Your task to perform on an android device: delete location history Image 0: 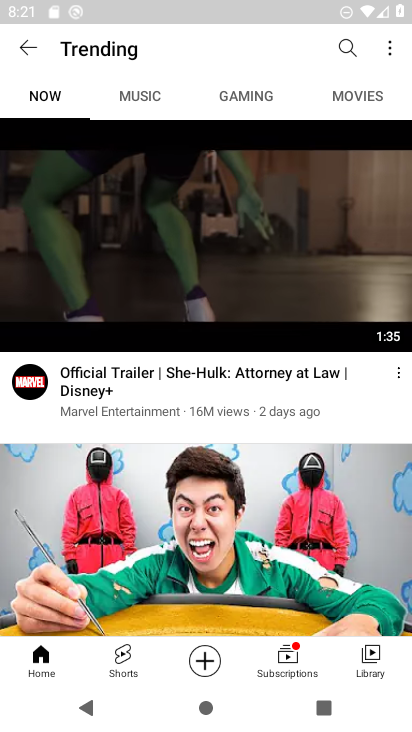
Step 0: press home button
Your task to perform on an android device: delete location history Image 1: 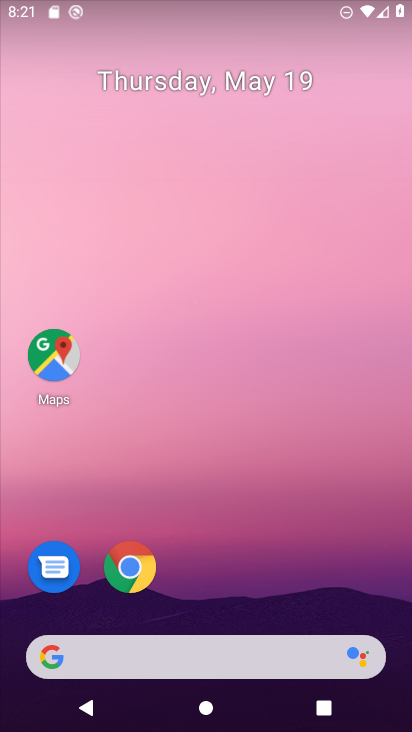
Step 1: click (61, 359)
Your task to perform on an android device: delete location history Image 2: 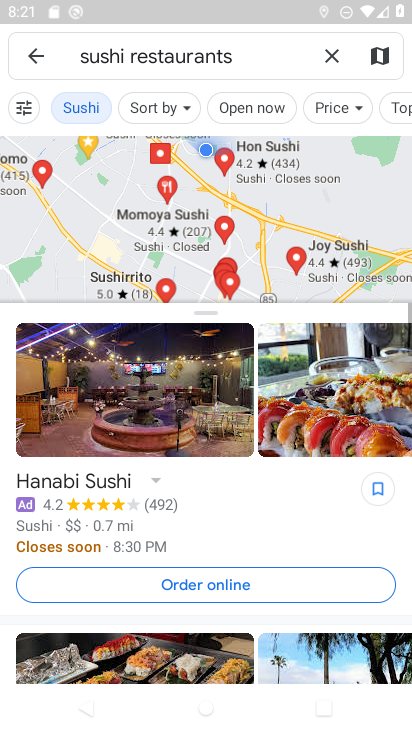
Step 2: click (43, 62)
Your task to perform on an android device: delete location history Image 3: 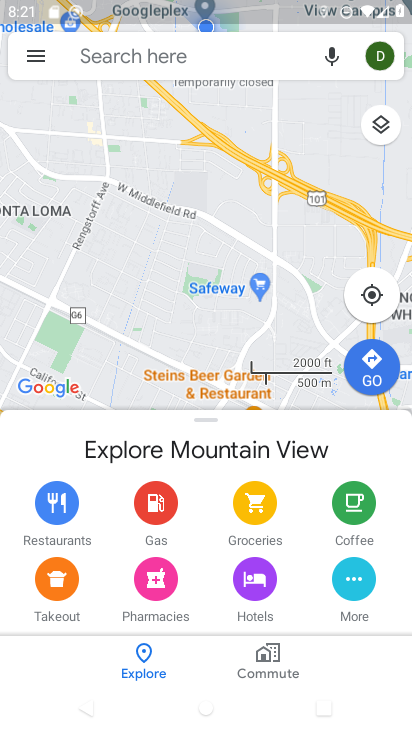
Step 3: click (43, 62)
Your task to perform on an android device: delete location history Image 4: 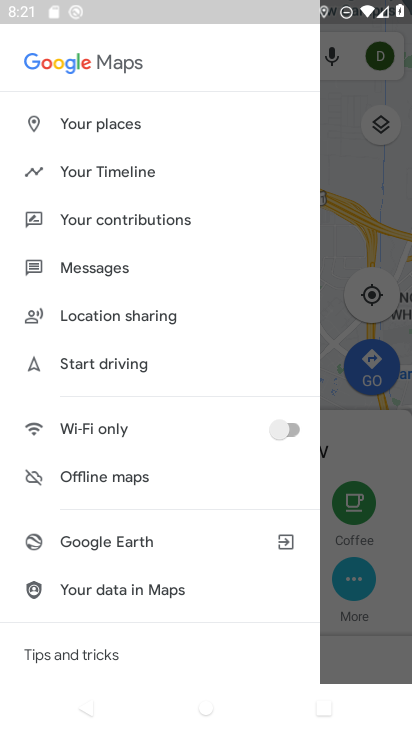
Step 4: drag from (125, 635) to (202, 179)
Your task to perform on an android device: delete location history Image 5: 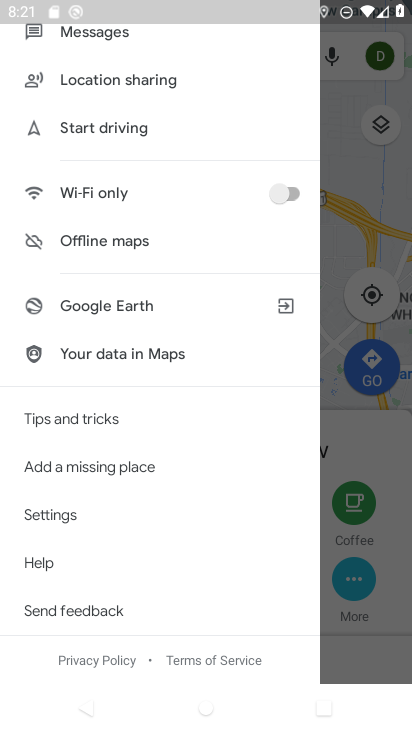
Step 5: click (97, 506)
Your task to perform on an android device: delete location history Image 6: 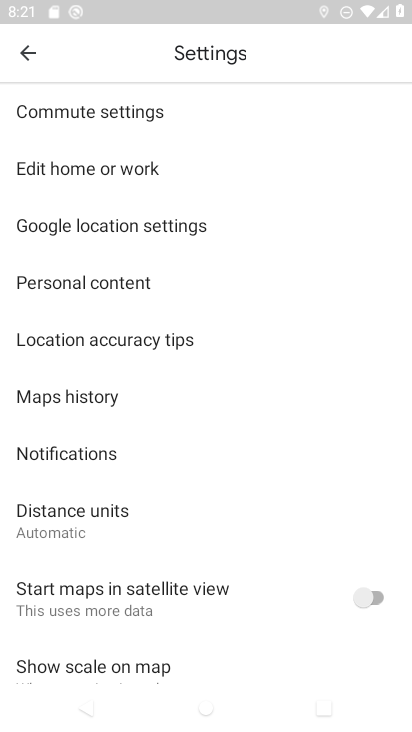
Step 6: drag from (157, 598) to (192, 186)
Your task to perform on an android device: delete location history Image 7: 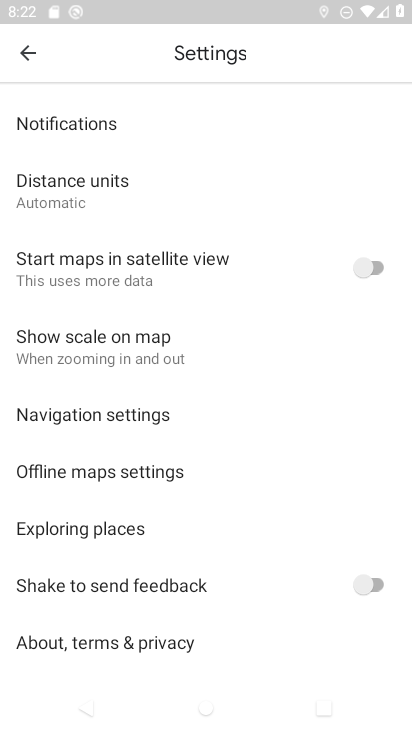
Step 7: drag from (109, 573) to (123, 107)
Your task to perform on an android device: delete location history Image 8: 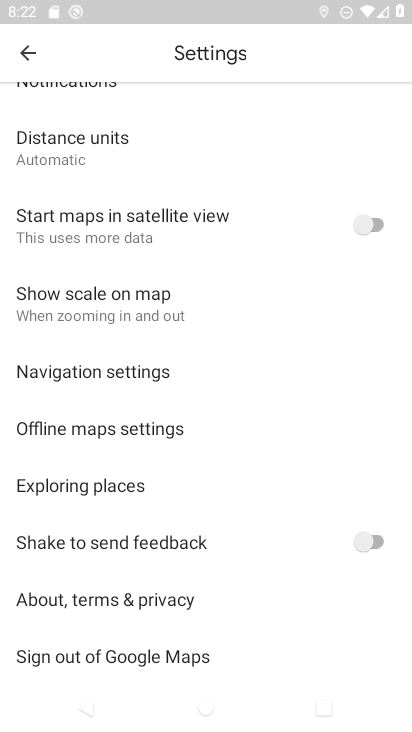
Step 8: drag from (123, 107) to (145, 550)
Your task to perform on an android device: delete location history Image 9: 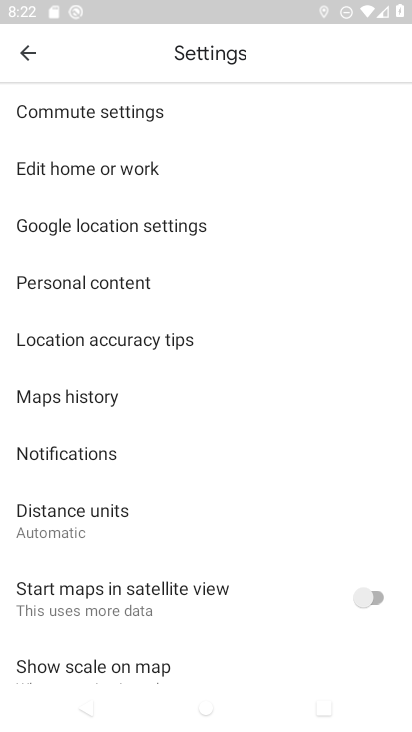
Step 9: click (22, 43)
Your task to perform on an android device: delete location history Image 10: 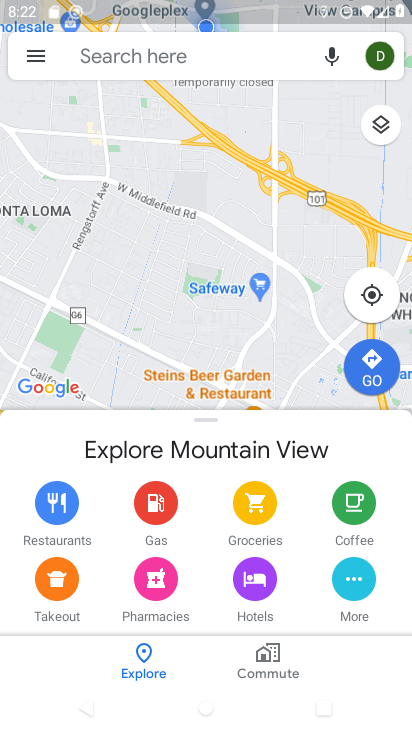
Step 10: click (22, 43)
Your task to perform on an android device: delete location history Image 11: 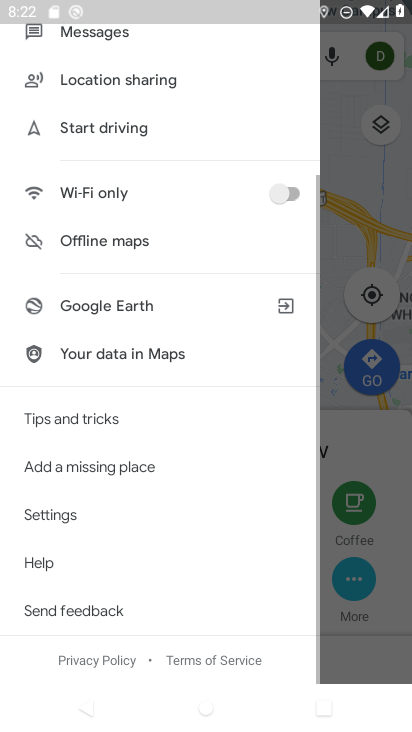
Step 11: click (33, 52)
Your task to perform on an android device: delete location history Image 12: 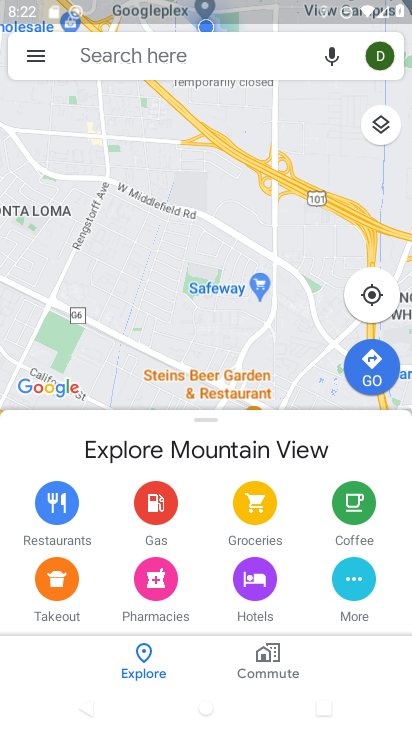
Step 12: click (38, 62)
Your task to perform on an android device: delete location history Image 13: 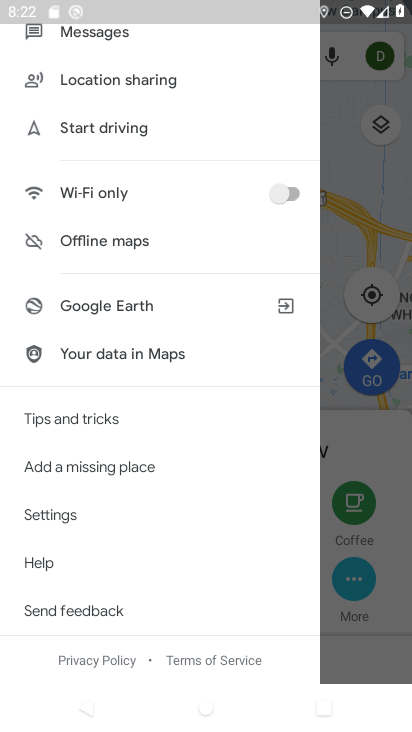
Step 13: drag from (136, 63) to (128, 621)
Your task to perform on an android device: delete location history Image 14: 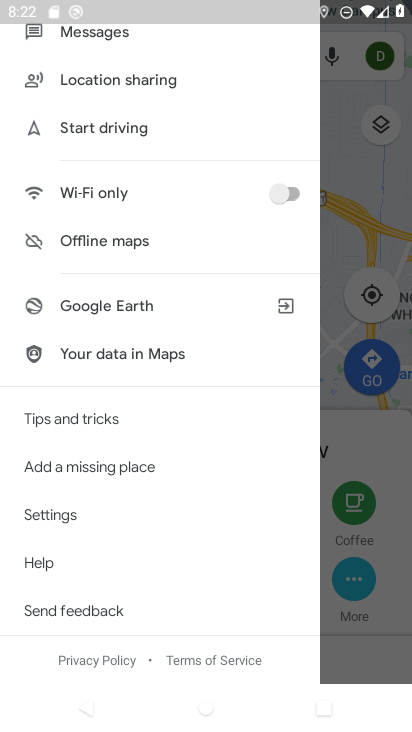
Step 14: drag from (211, 67) to (254, 565)
Your task to perform on an android device: delete location history Image 15: 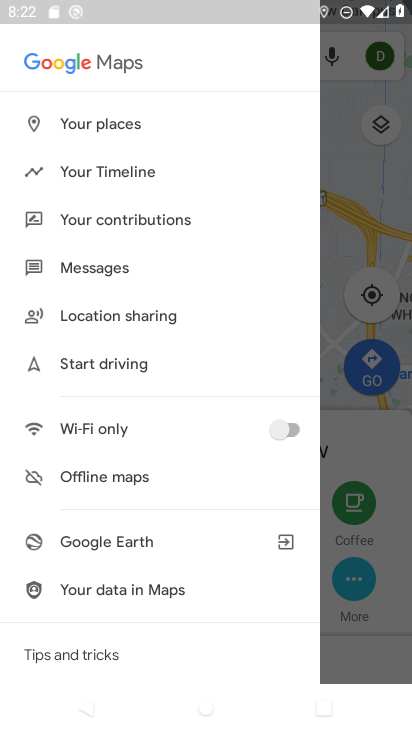
Step 15: click (143, 177)
Your task to perform on an android device: delete location history Image 16: 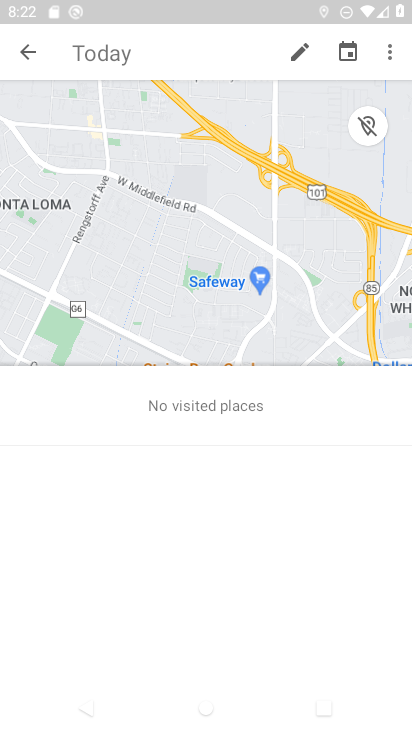
Step 16: click (397, 48)
Your task to perform on an android device: delete location history Image 17: 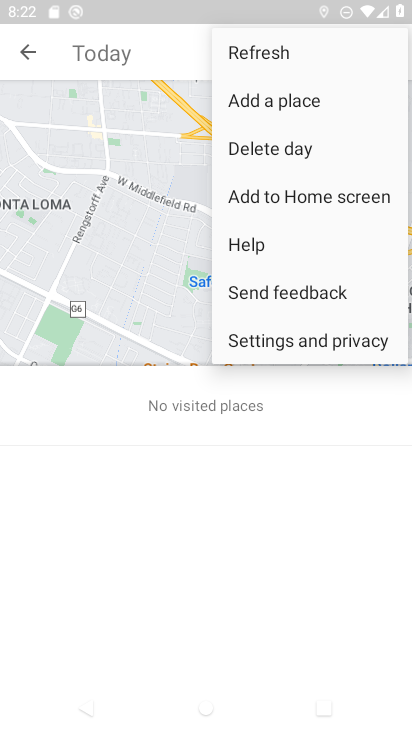
Step 17: click (250, 348)
Your task to perform on an android device: delete location history Image 18: 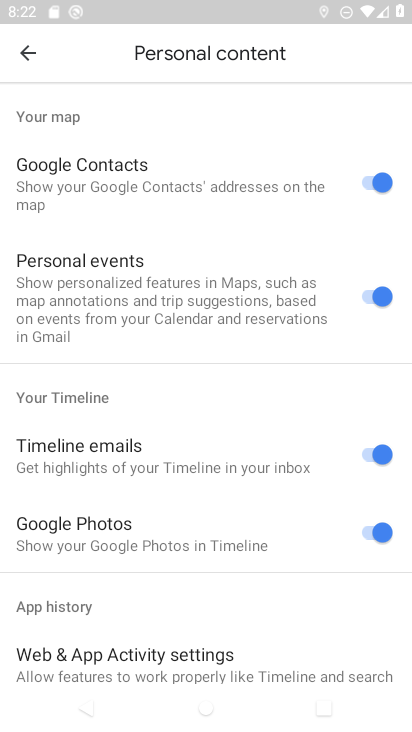
Step 18: drag from (147, 622) to (135, 188)
Your task to perform on an android device: delete location history Image 19: 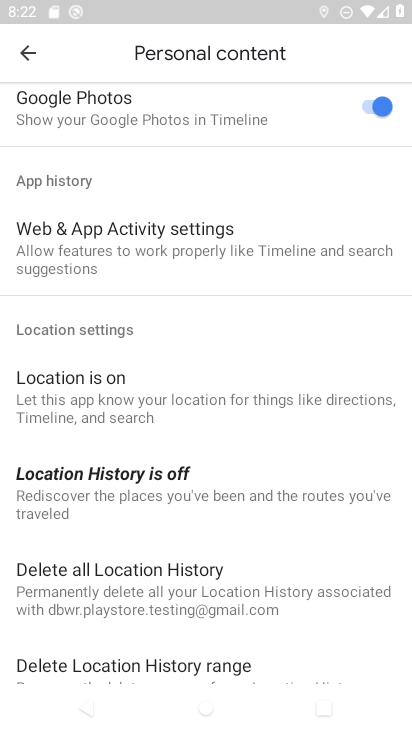
Step 19: click (88, 614)
Your task to perform on an android device: delete location history Image 20: 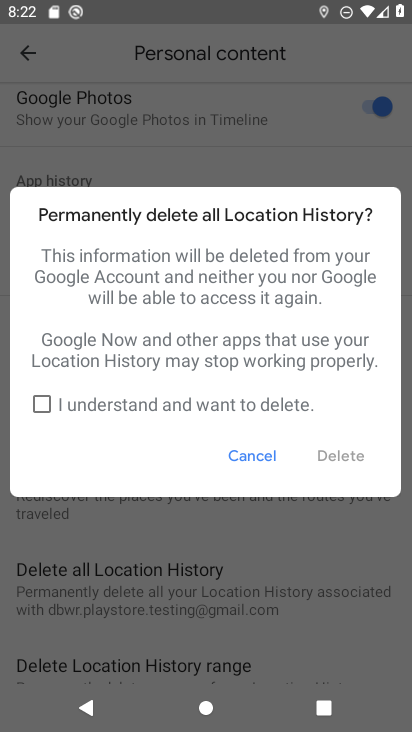
Step 20: click (46, 404)
Your task to perform on an android device: delete location history Image 21: 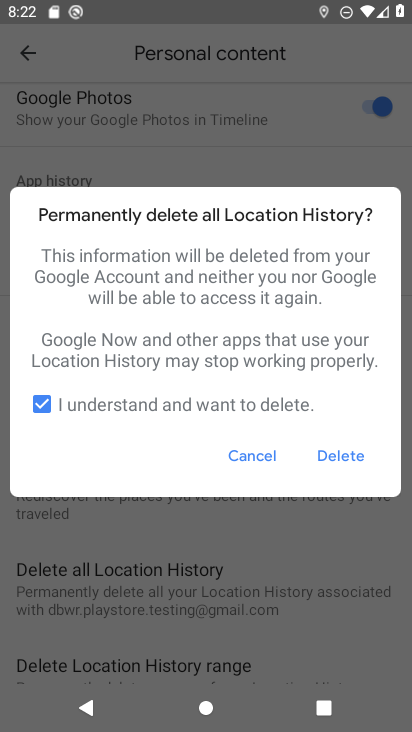
Step 21: click (354, 458)
Your task to perform on an android device: delete location history Image 22: 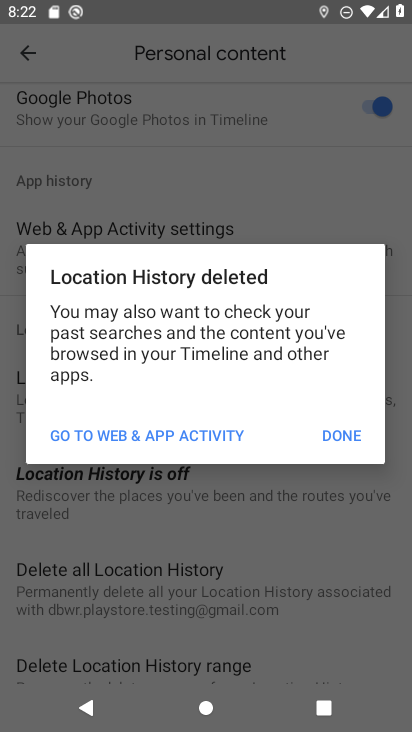
Step 22: click (344, 442)
Your task to perform on an android device: delete location history Image 23: 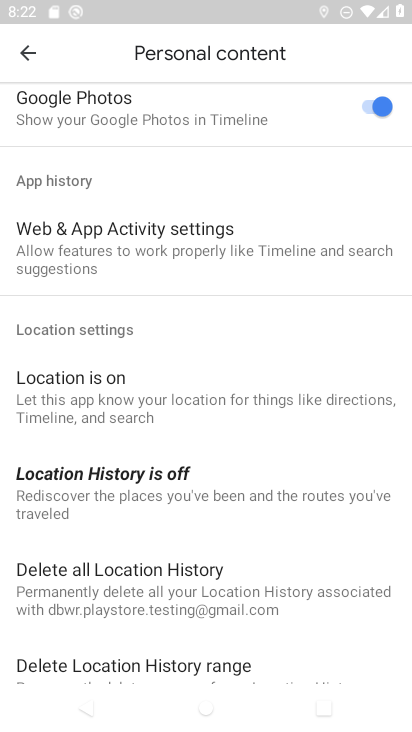
Step 23: task complete